Your task to perform on an android device: check android version Image 0: 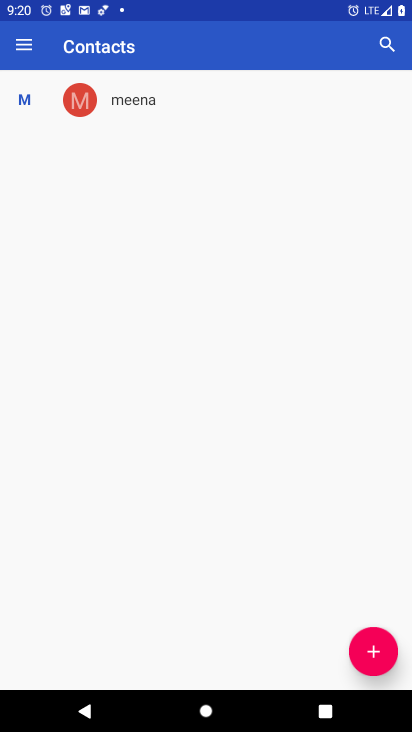
Step 0: press home button
Your task to perform on an android device: check android version Image 1: 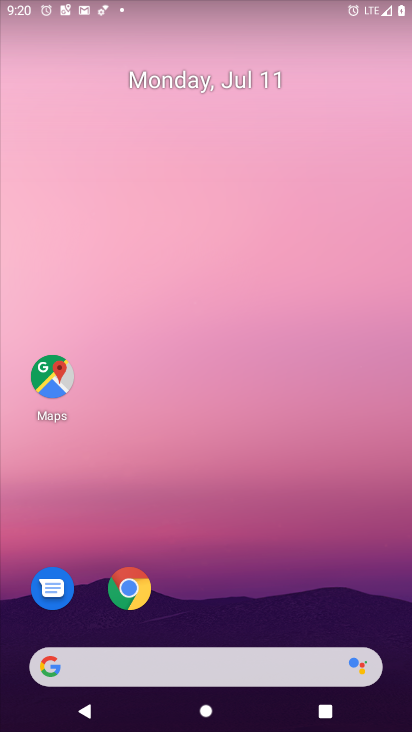
Step 1: drag from (185, 671) to (365, 107)
Your task to perform on an android device: check android version Image 2: 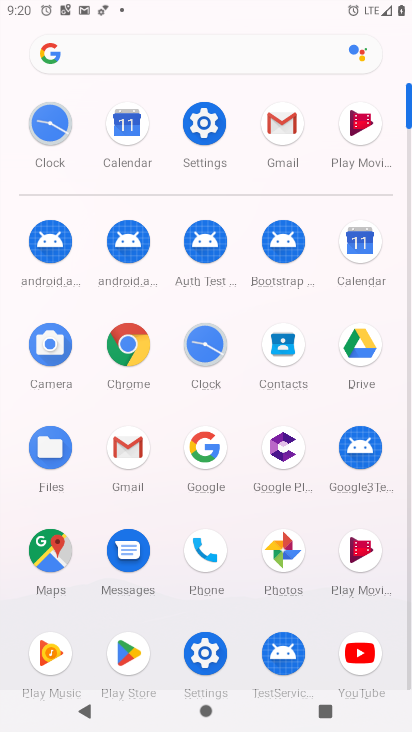
Step 2: click (208, 119)
Your task to perform on an android device: check android version Image 3: 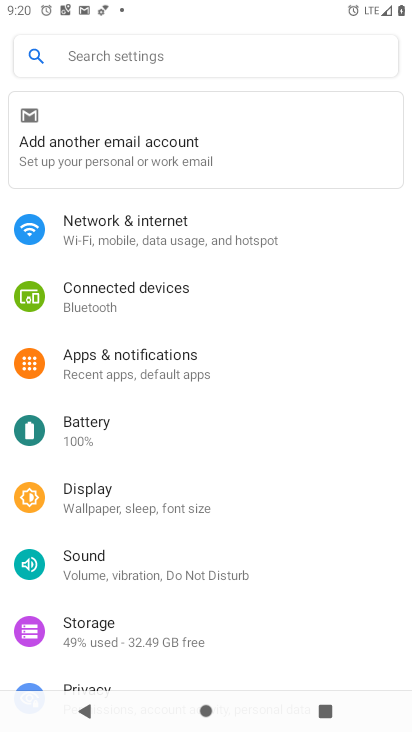
Step 3: drag from (275, 645) to (407, 208)
Your task to perform on an android device: check android version Image 4: 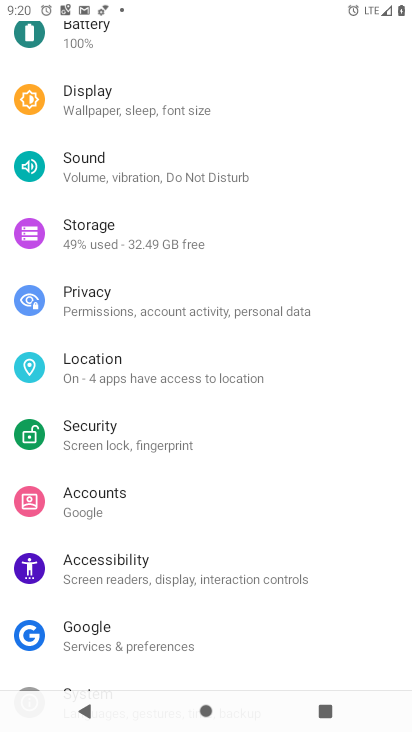
Step 4: drag from (223, 633) to (325, 208)
Your task to perform on an android device: check android version Image 5: 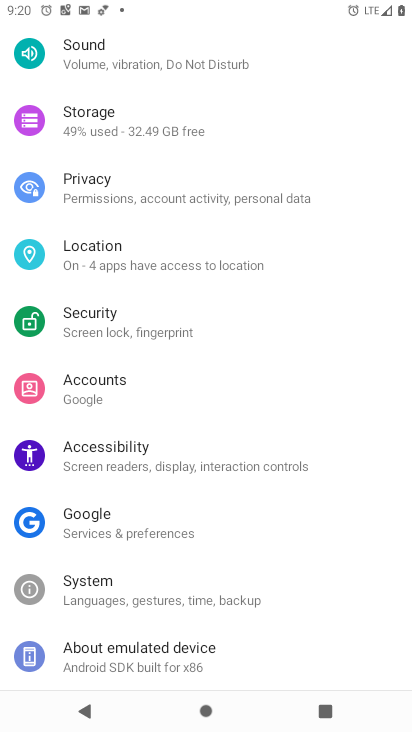
Step 5: click (173, 655)
Your task to perform on an android device: check android version Image 6: 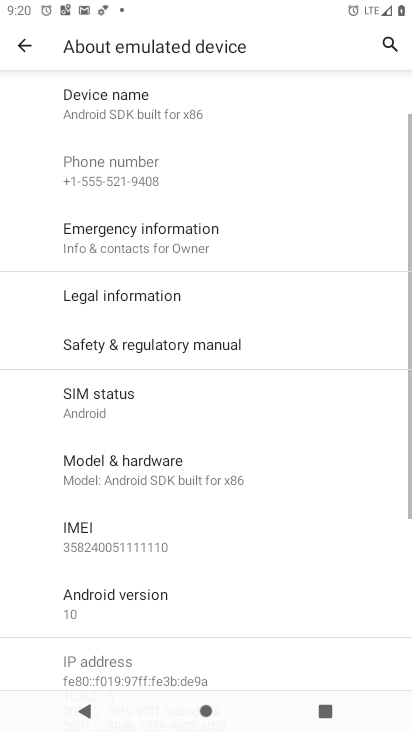
Step 6: click (145, 594)
Your task to perform on an android device: check android version Image 7: 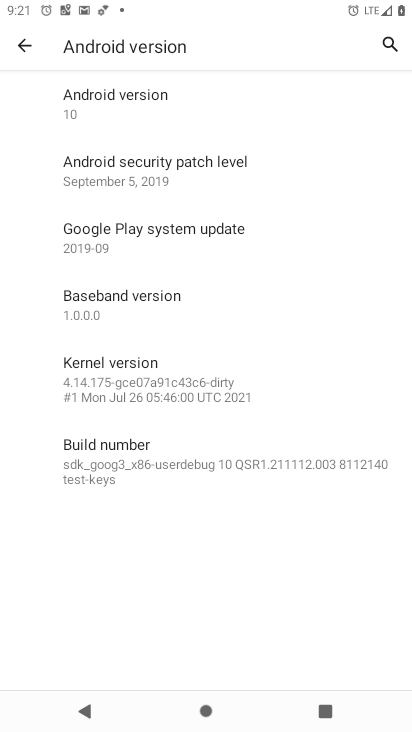
Step 7: task complete